Your task to perform on an android device: turn notification dots on Image 0: 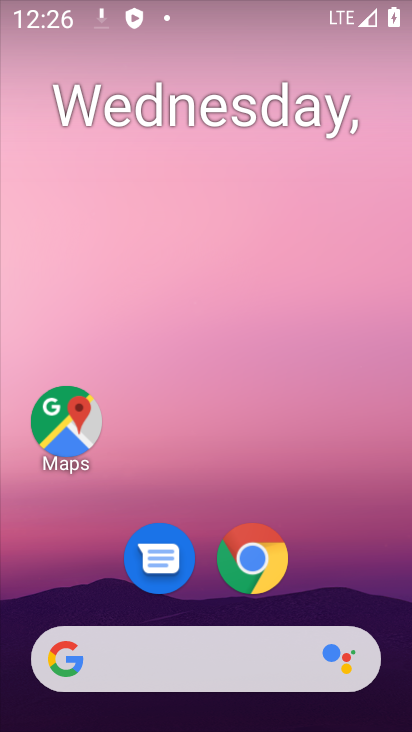
Step 0: drag from (268, 530) to (268, 63)
Your task to perform on an android device: turn notification dots on Image 1: 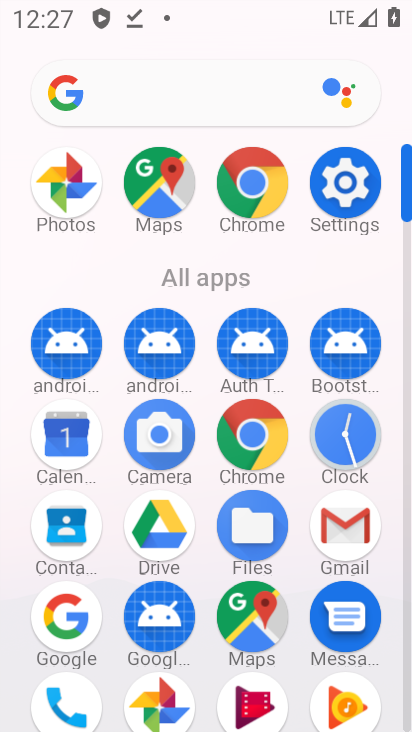
Step 1: click (348, 191)
Your task to perform on an android device: turn notification dots on Image 2: 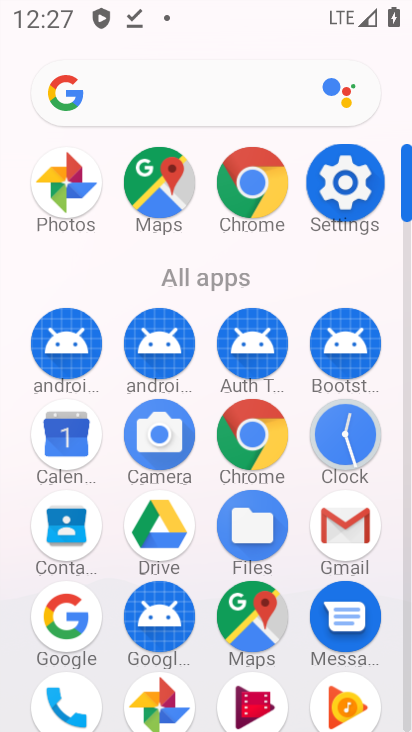
Step 2: click (347, 191)
Your task to perform on an android device: turn notification dots on Image 3: 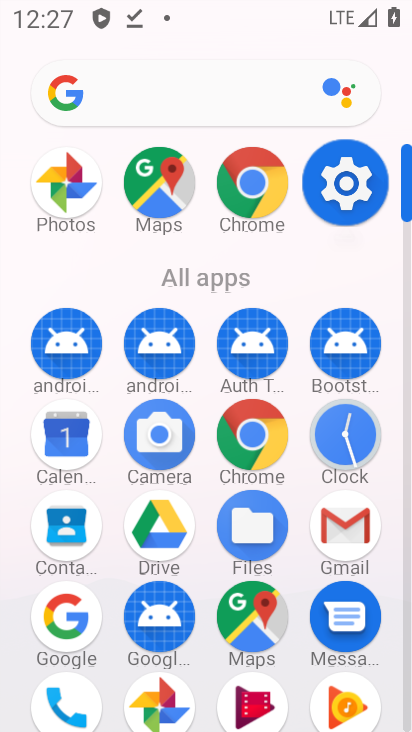
Step 3: click (342, 180)
Your task to perform on an android device: turn notification dots on Image 4: 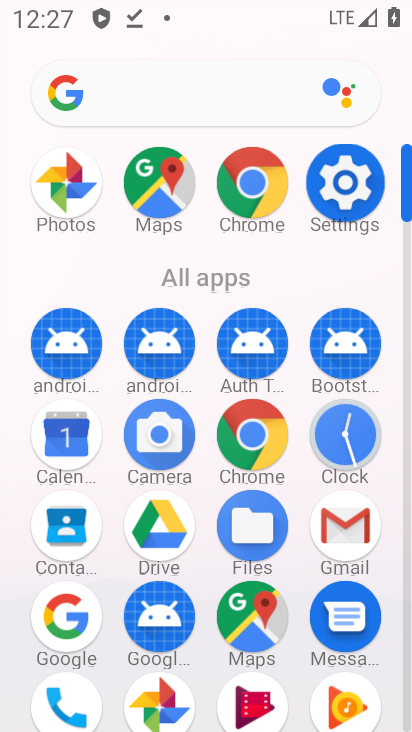
Step 4: click (347, 181)
Your task to perform on an android device: turn notification dots on Image 5: 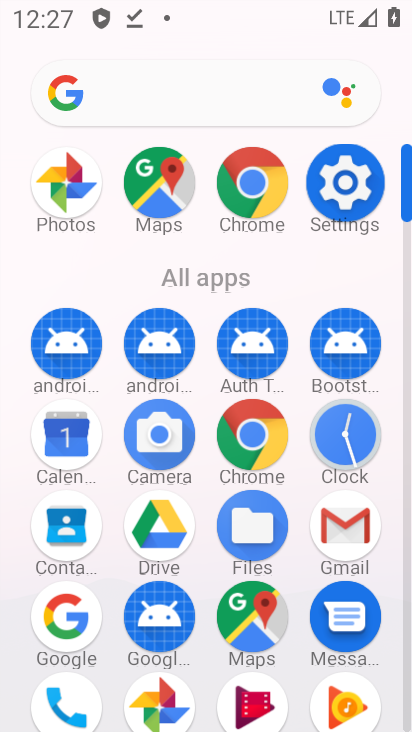
Step 5: click (348, 180)
Your task to perform on an android device: turn notification dots on Image 6: 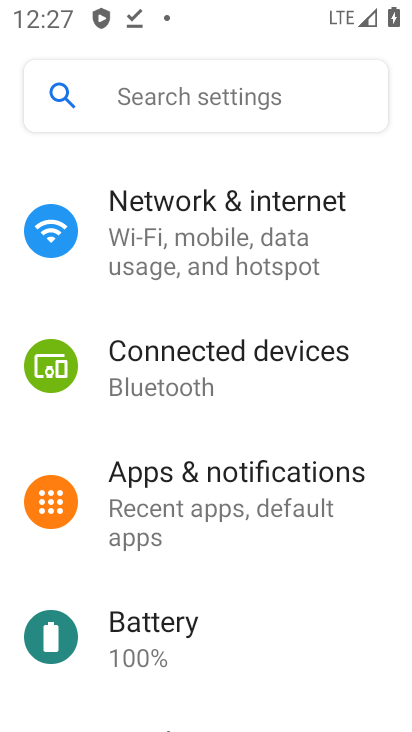
Step 6: click (349, 180)
Your task to perform on an android device: turn notification dots on Image 7: 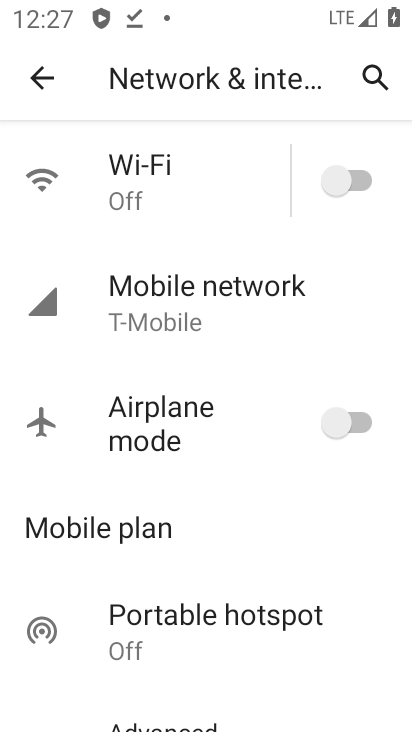
Step 7: click (37, 85)
Your task to perform on an android device: turn notification dots on Image 8: 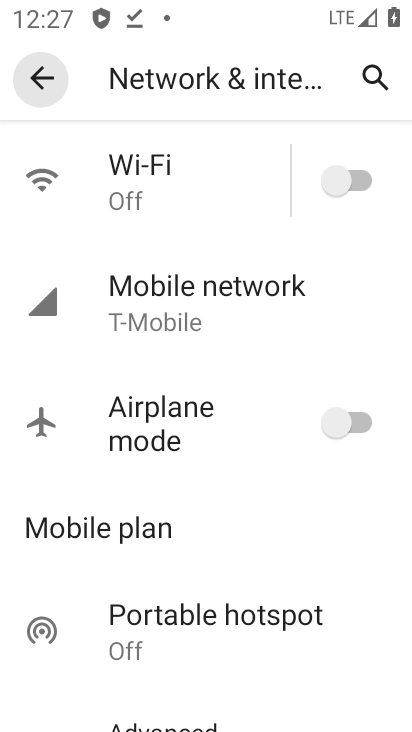
Step 8: click (38, 87)
Your task to perform on an android device: turn notification dots on Image 9: 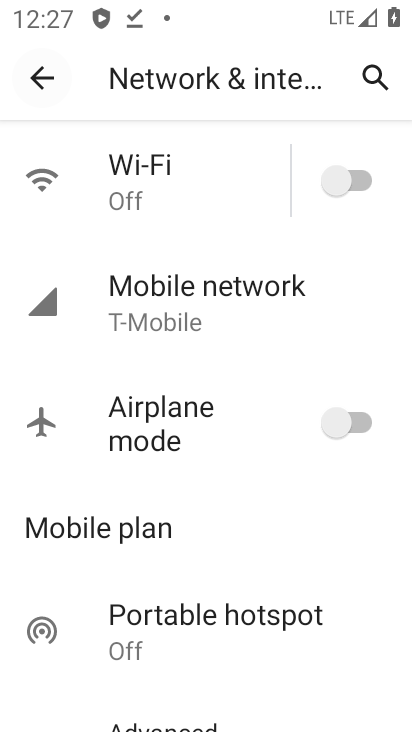
Step 9: click (44, 84)
Your task to perform on an android device: turn notification dots on Image 10: 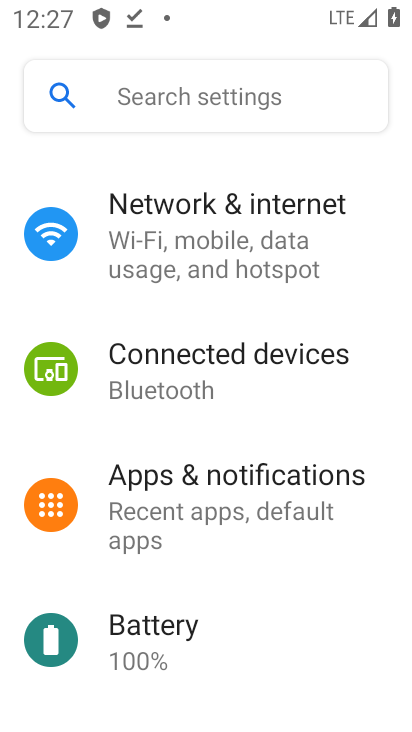
Step 10: click (54, 90)
Your task to perform on an android device: turn notification dots on Image 11: 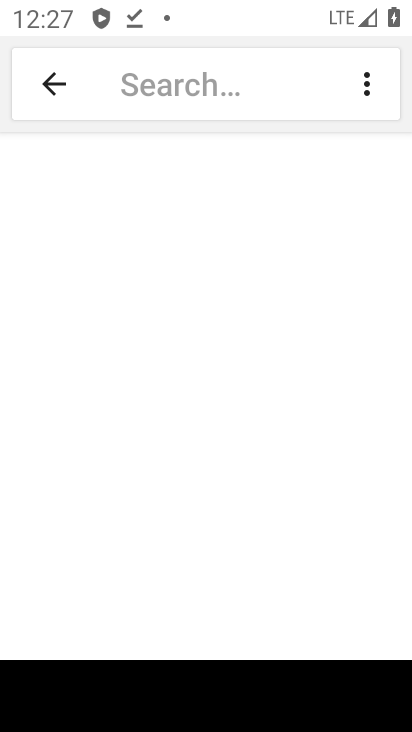
Step 11: click (43, 82)
Your task to perform on an android device: turn notification dots on Image 12: 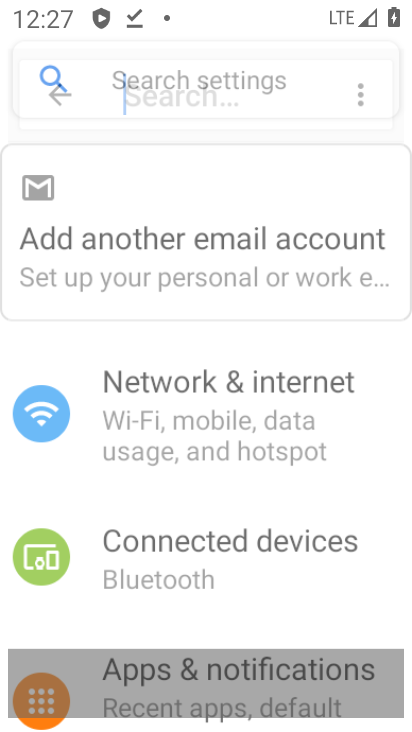
Step 12: click (46, 61)
Your task to perform on an android device: turn notification dots on Image 13: 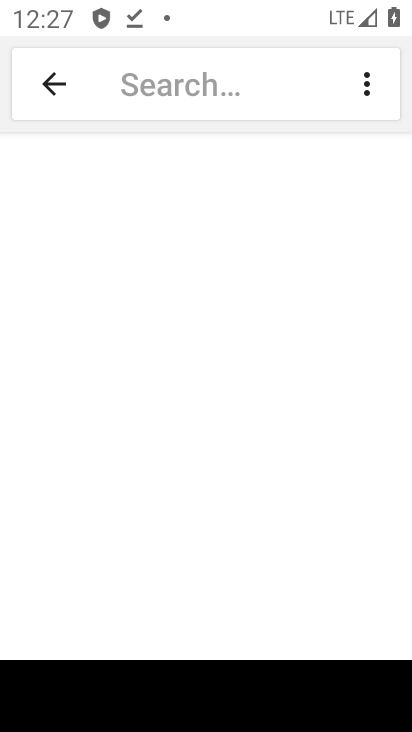
Step 13: click (39, 84)
Your task to perform on an android device: turn notification dots on Image 14: 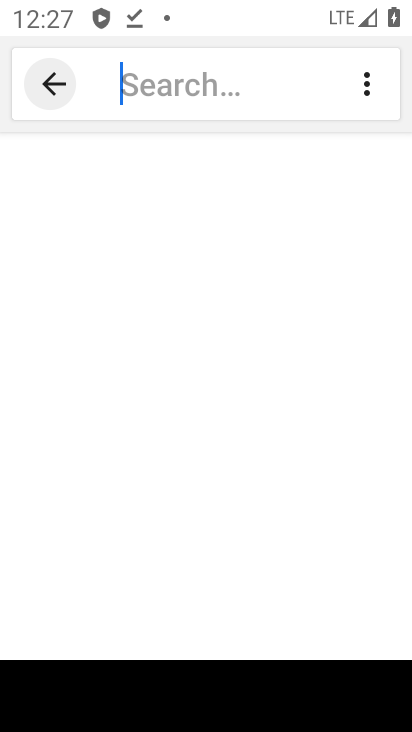
Step 14: click (42, 82)
Your task to perform on an android device: turn notification dots on Image 15: 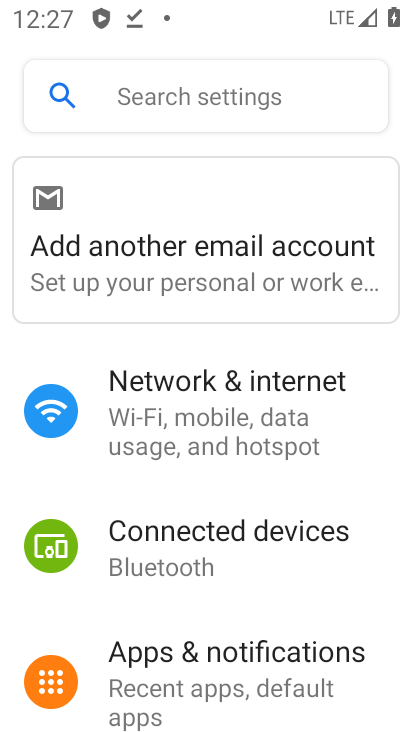
Step 15: click (218, 664)
Your task to perform on an android device: turn notification dots on Image 16: 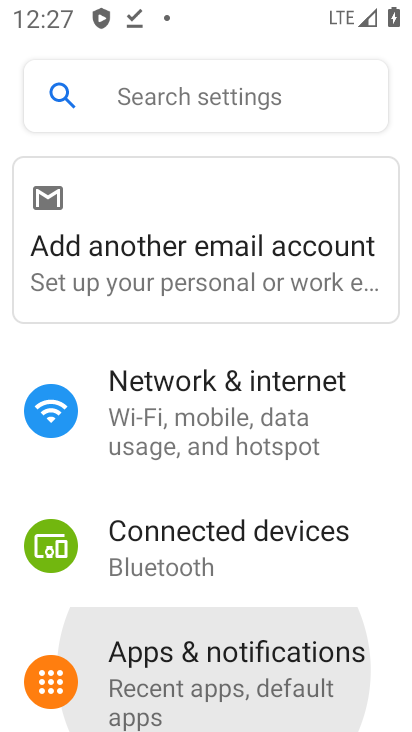
Step 16: click (218, 664)
Your task to perform on an android device: turn notification dots on Image 17: 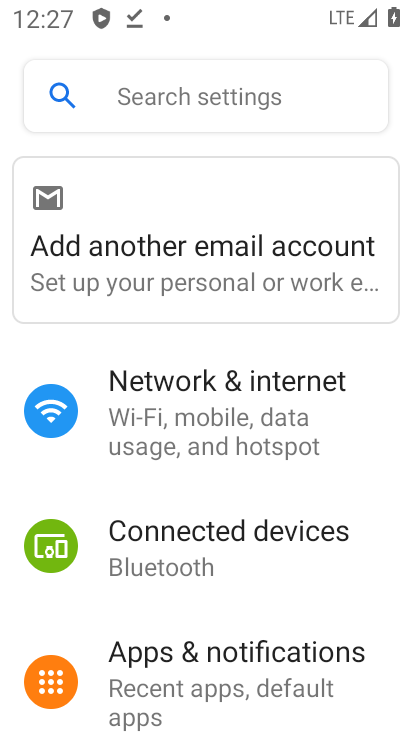
Step 17: click (223, 661)
Your task to perform on an android device: turn notification dots on Image 18: 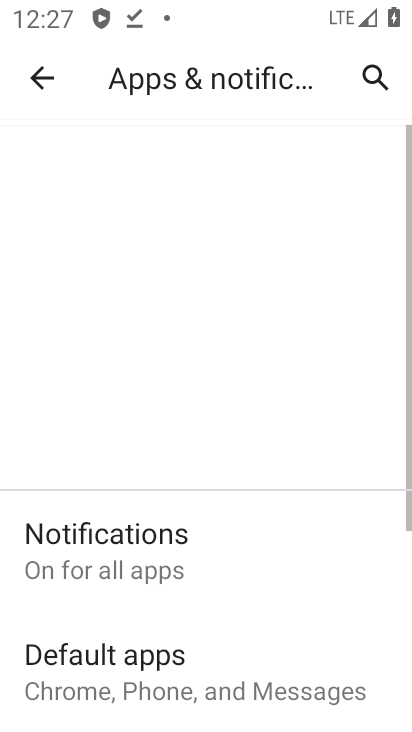
Step 18: click (249, 665)
Your task to perform on an android device: turn notification dots on Image 19: 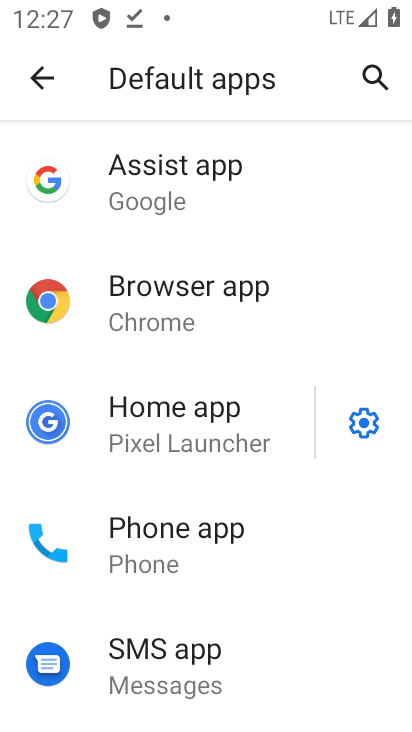
Step 19: click (30, 75)
Your task to perform on an android device: turn notification dots on Image 20: 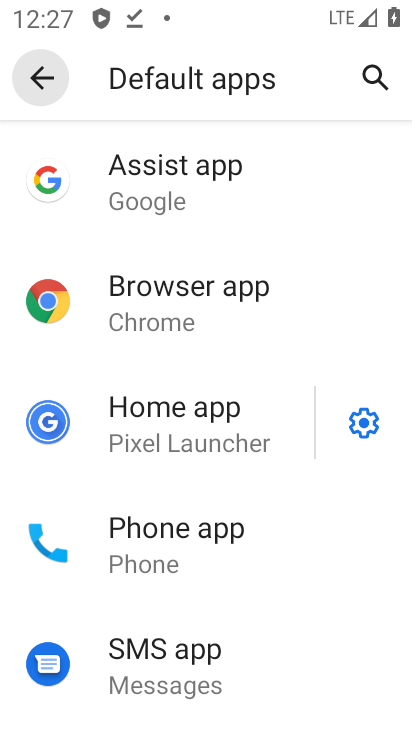
Step 20: click (33, 73)
Your task to perform on an android device: turn notification dots on Image 21: 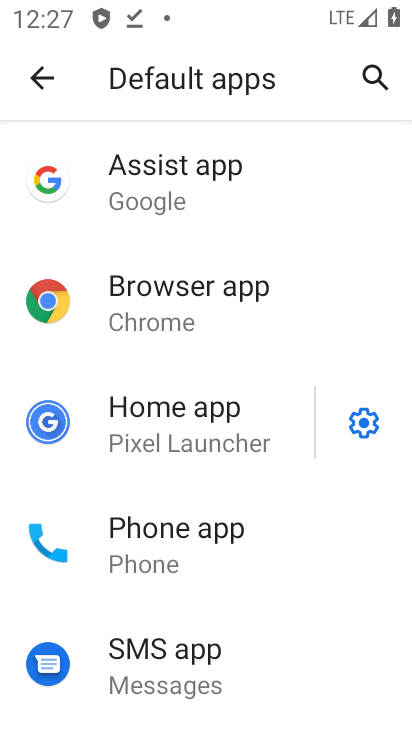
Step 21: click (38, 74)
Your task to perform on an android device: turn notification dots on Image 22: 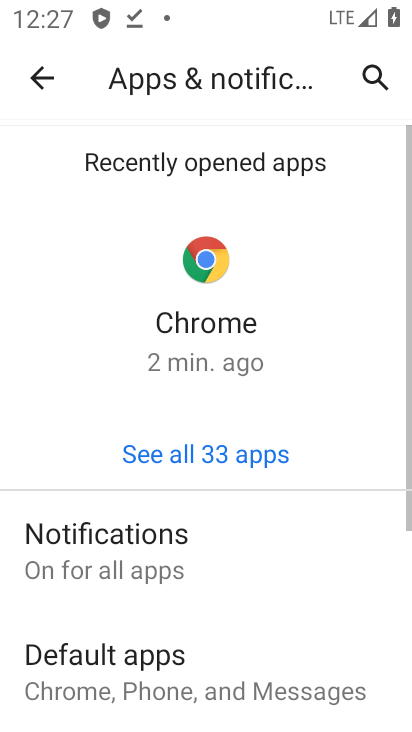
Step 22: click (99, 552)
Your task to perform on an android device: turn notification dots on Image 23: 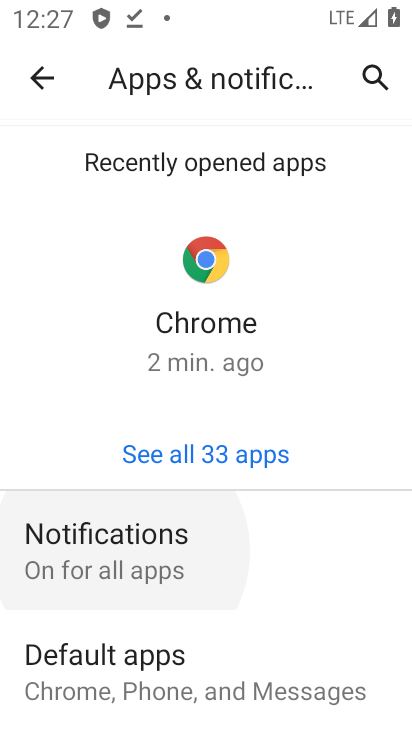
Step 23: click (104, 554)
Your task to perform on an android device: turn notification dots on Image 24: 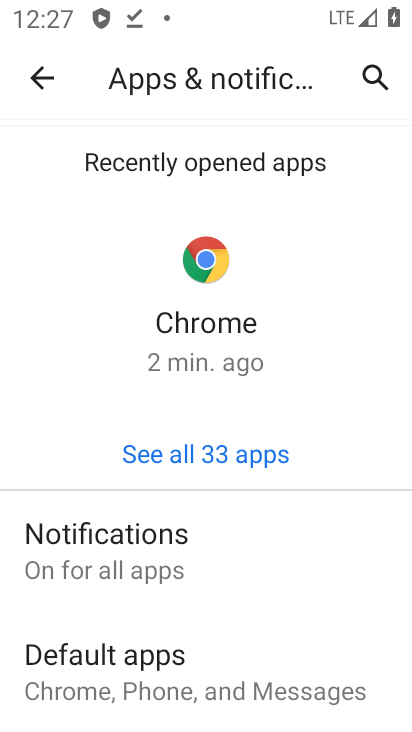
Step 24: click (104, 547)
Your task to perform on an android device: turn notification dots on Image 25: 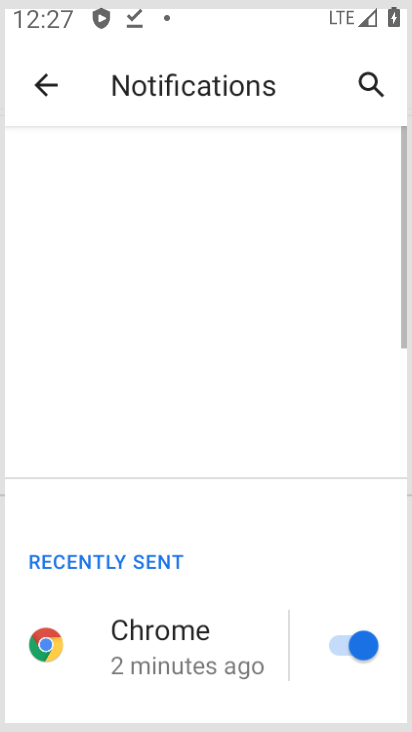
Step 25: click (104, 543)
Your task to perform on an android device: turn notification dots on Image 26: 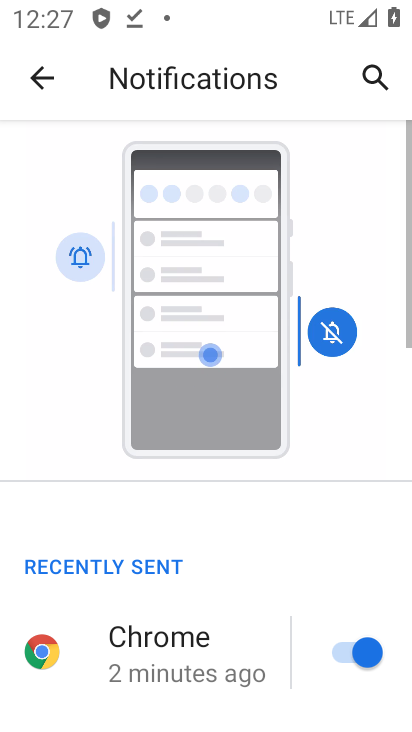
Step 26: drag from (246, 424) to (213, 134)
Your task to perform on an android device: turn notification dots on Image 27: 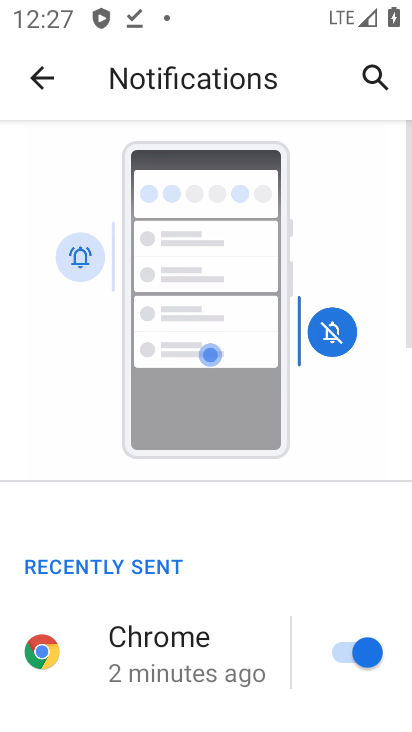
Step 27: drag from (276, 461) to (283, 32)
Your task to perform on an android device: turn notification dots on Image 28: 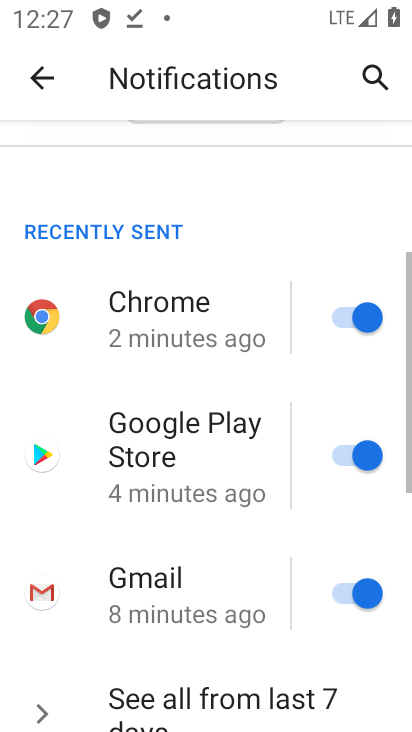
Step 28: drag from (256, 475) to (251, 95)
Your task to perform on an android device: turn notification dots on Image 29: 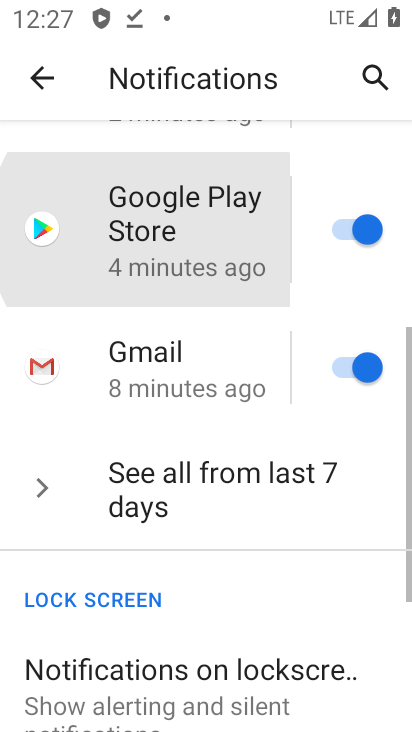
Step 29: drag from (282, 556) to (310, 168)
Your task to perform on an android device: turn notification dots on Image 30: 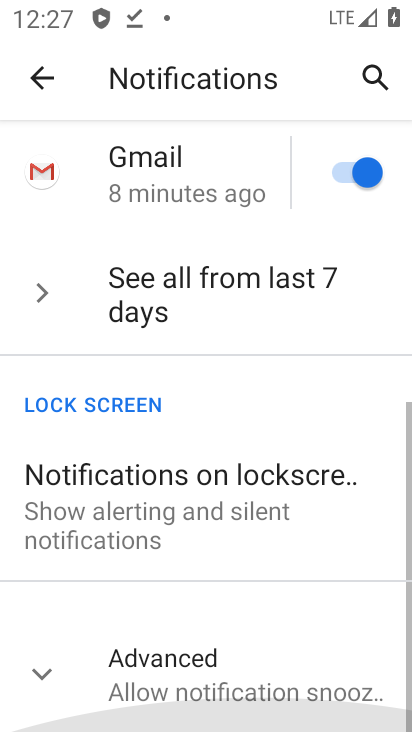
Step 30: drag from (277, 452) to (277, 116)
Your task to perform on an android device: turn notification dots on Image 31: 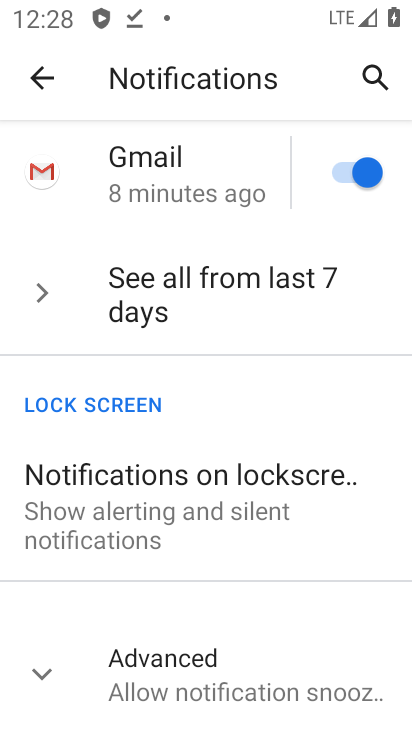
Step 31: click (128, 514)
Your task to perform on an android device: turn notification dots on Image 32: 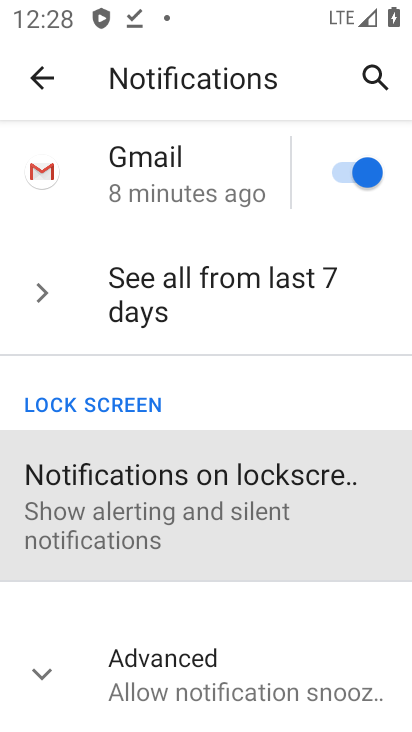
Step 32: click (130, 508)
Your task to perform on an android device: turn notification dots on Image 33: 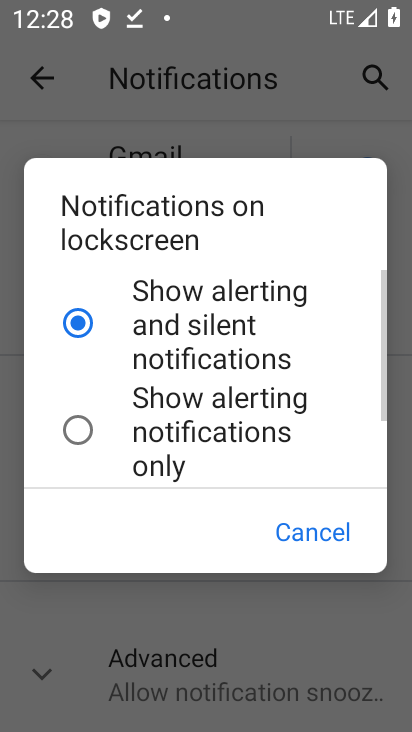
Step 33: click (305, 525)
Your task to perform on an android device: turn notification dots on Image 34: 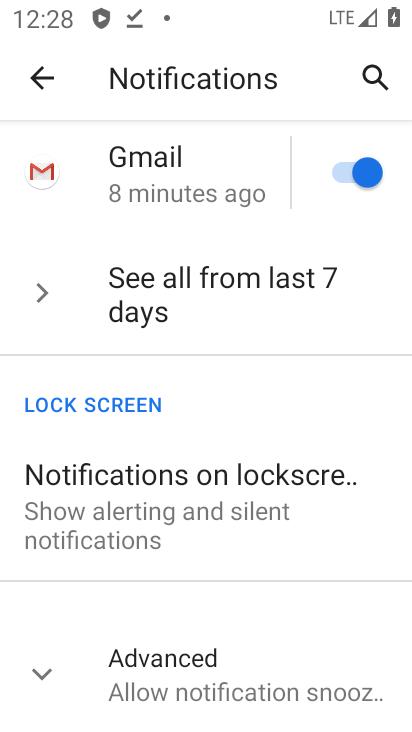
Step 34: drag from (291, 539) to (291, 264)
Your task to perform on an android device: turn notification dots on Image 35: 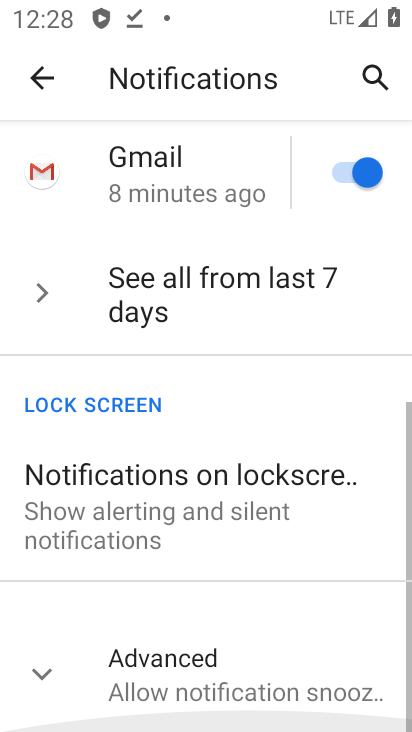
Step 35: drag from (283, 654) to (276, 199)
Your task to perform on an android device: turn notification dots on Image 36: 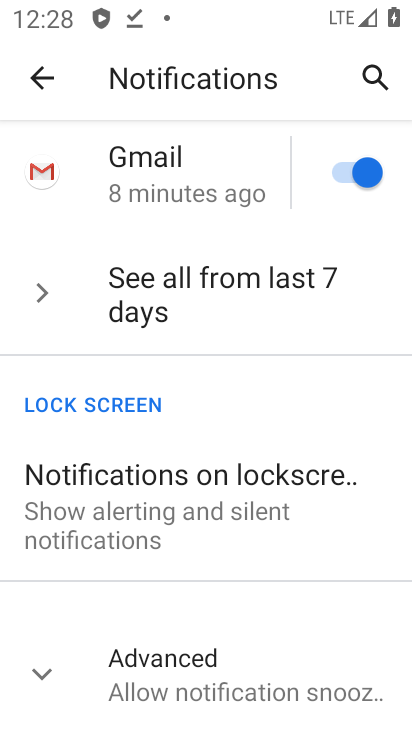
Step 36: drag from (236, 477) to (242, 147)
Your task to perform on an android device: turn notification dots on Image 37: 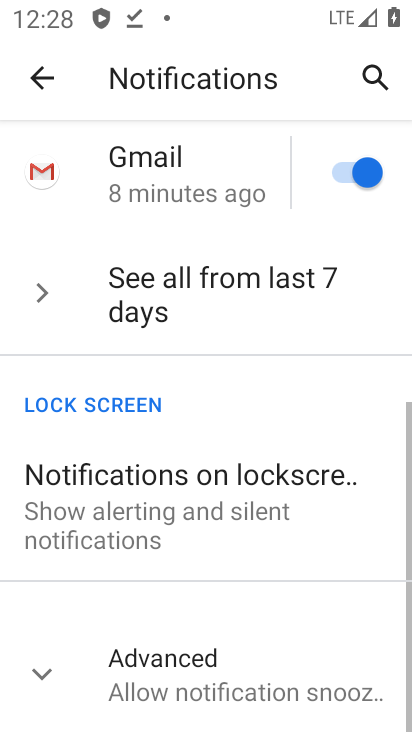
Step 37: drag from (192, 280) to (218, 96)
Your task to perform on an android device: turn notification dots on Image 38: 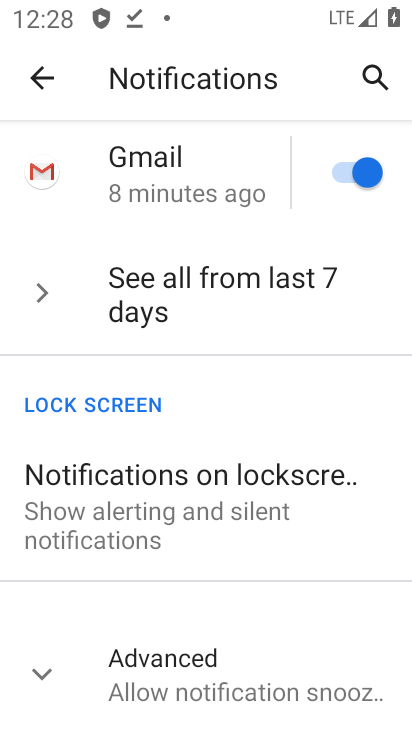
Step 38: drag from (241, 378) to (256, 69)
Your task to perform on an android device: turn notification dots on Image 39: 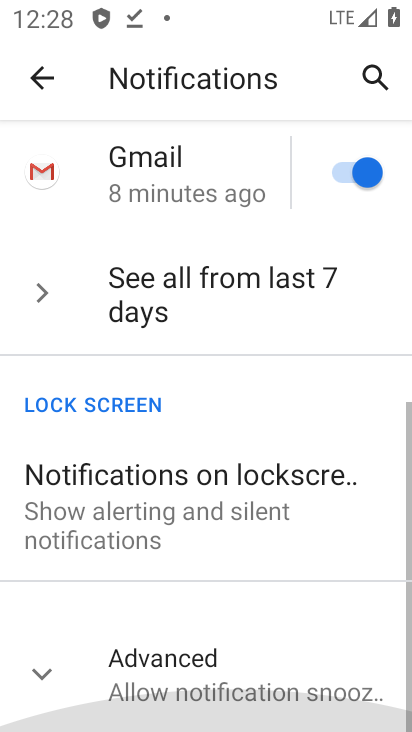
Step 39: click (261, 112)
Your task to perform on an android device: turn notification dots on Image 40: 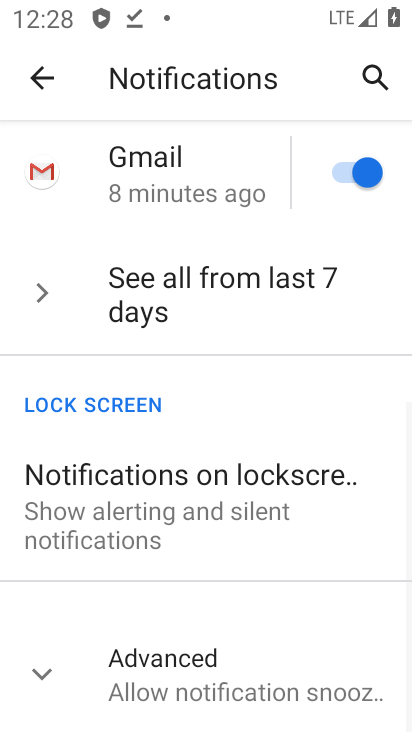
Step 40: drag from (248, 389) to (233, 36)
Your task to perform on an android device: turn notification dots on Image 41: 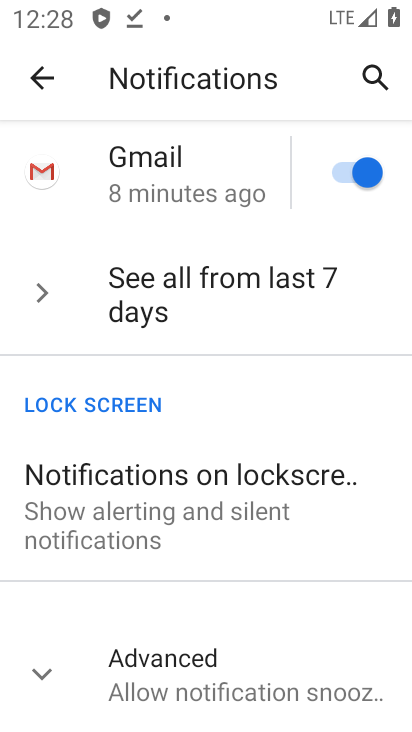
Step 41: drag from (236, 348) to (206, 23)
Your task to perform on an android device: turn notification dots on Image 42: 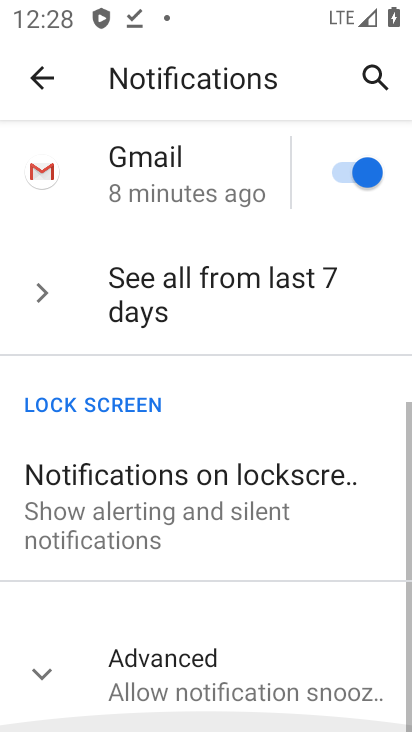
Step 42: drag from (277, 398) to (215, 3)
Your task to perform on an android device: turn notification dots on Image 43: 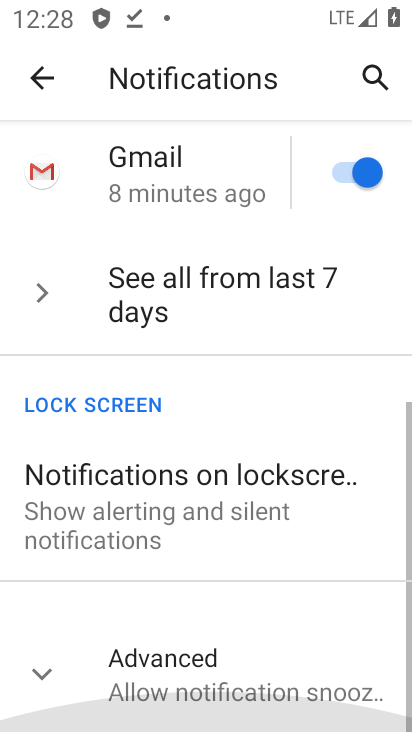
Step 43: drag from (197, 223) to (181, 167)
Your task to perform on an android device: turn notification dots on Image 44: 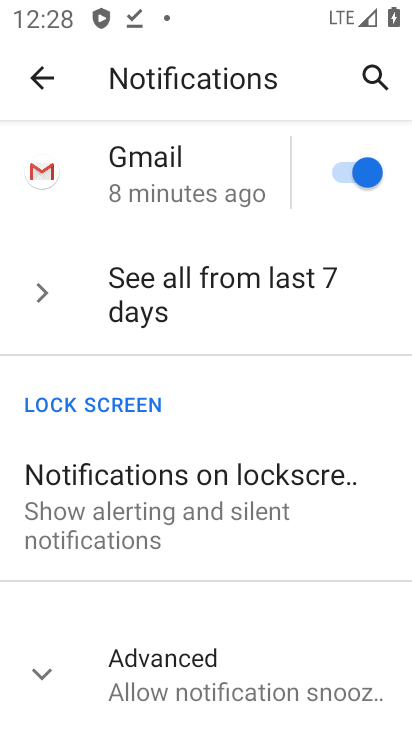
Step 44: drag from (215, 590) to (182, 293)
Your task to perform on an android device: turn notification dots on Image 45: 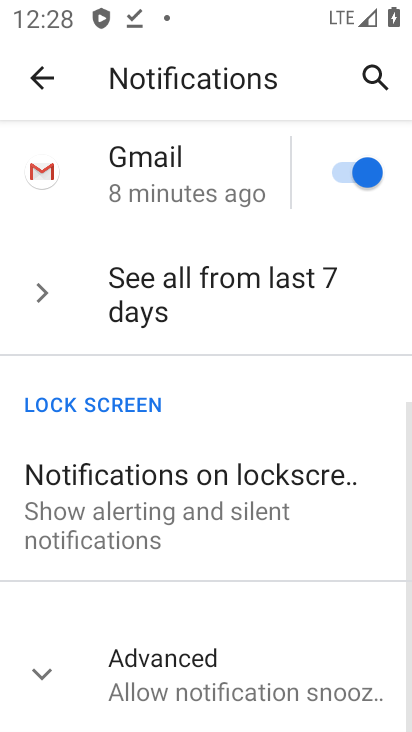
Step 45: click (198, 686)
Your task to perform on an android device: turn notification dots on Image 46: 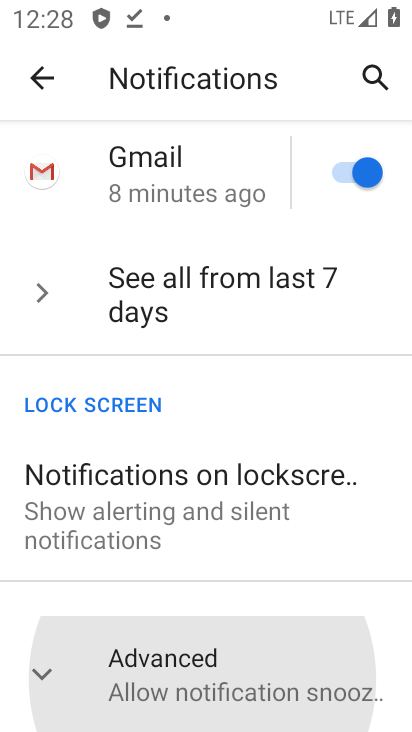
Step 46: click (199, 675)
Your task to perform on an android device: turn notification dots on Image 47: 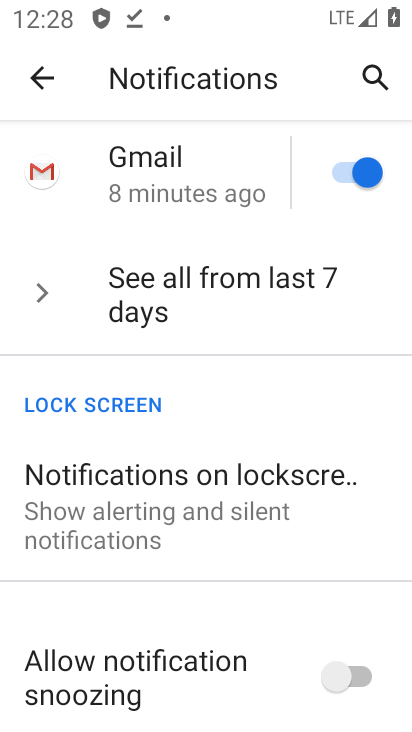
Step 47: drag from (310, 602) to (280, 266)
Your task to perform on an android device: turn notification dots on Image 48: 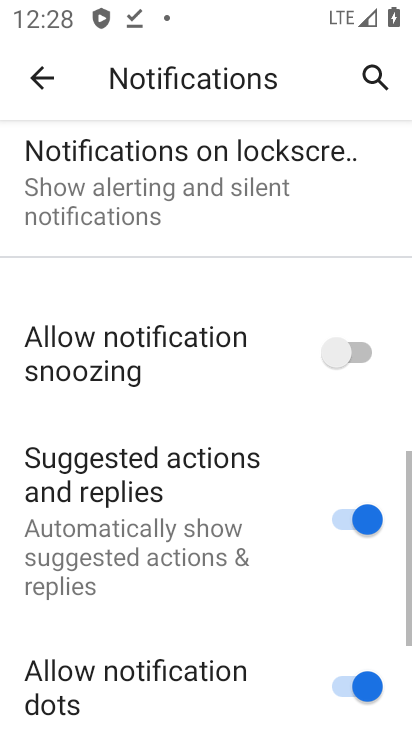
Step 48: drag from (225, 536) to (224, 109)
Your task to perform on an android device: turn notification dots on Image 49: 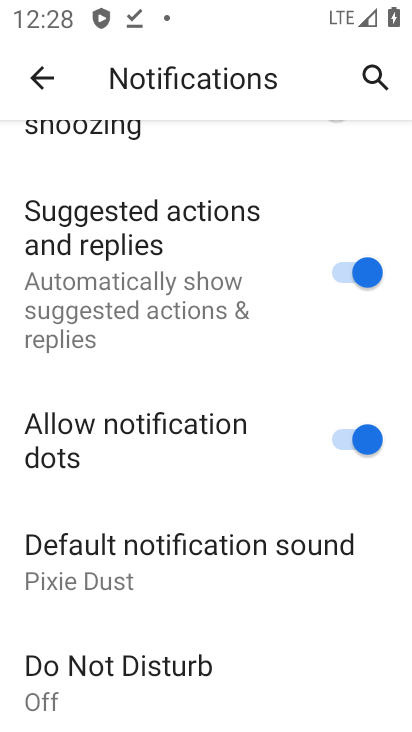
Step 49: click (364, 441)
Your task to perform on an android device: turn notification dots on Image 50: 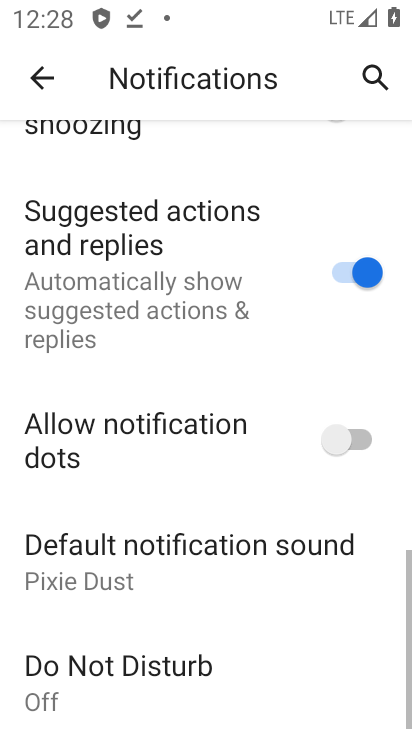
Step 50: click (338, 437)
Your task to perform on an android device: turn notification dots on Image 51: 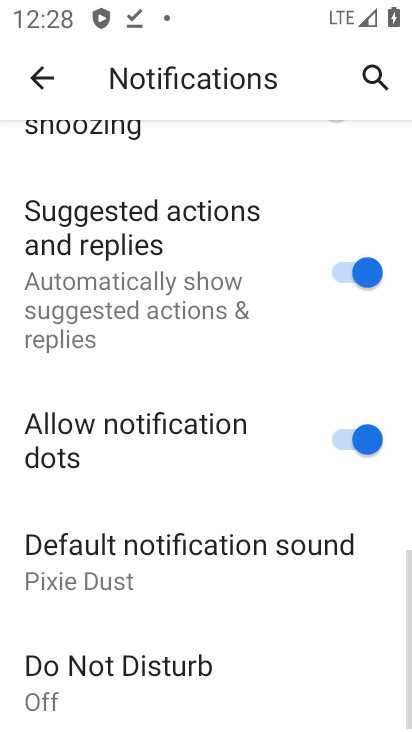
Step 51: task complete